Your task to perform on an android device: Open ESPN.com Image 0: 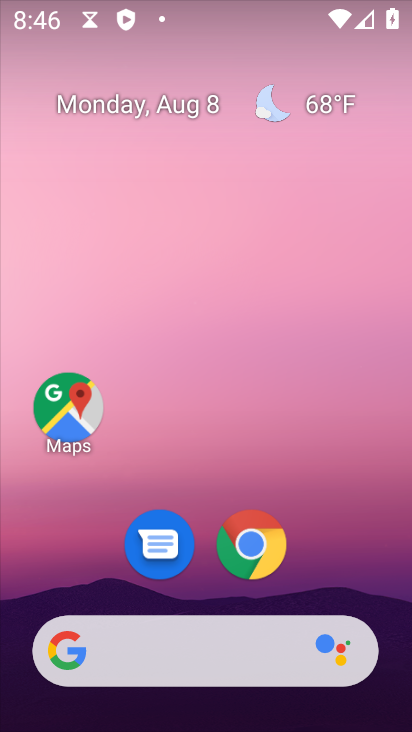
Step 0: press home button
Your task to perform on an android device: Open ESPN.com Image 1: 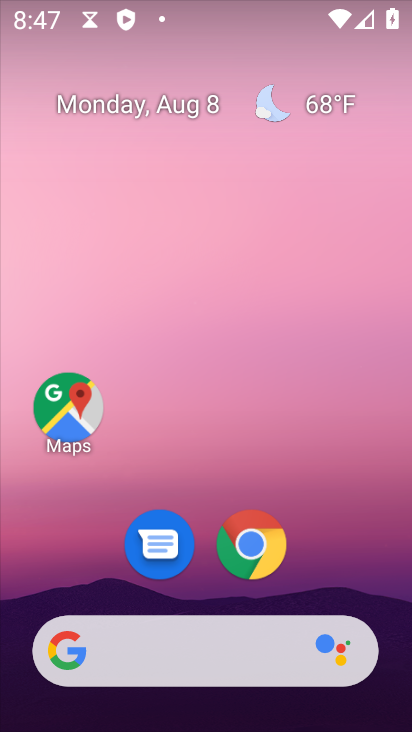
Step 1: click (252, 541)
Your task to perform on an android device: Open ESPN.com Image 2: 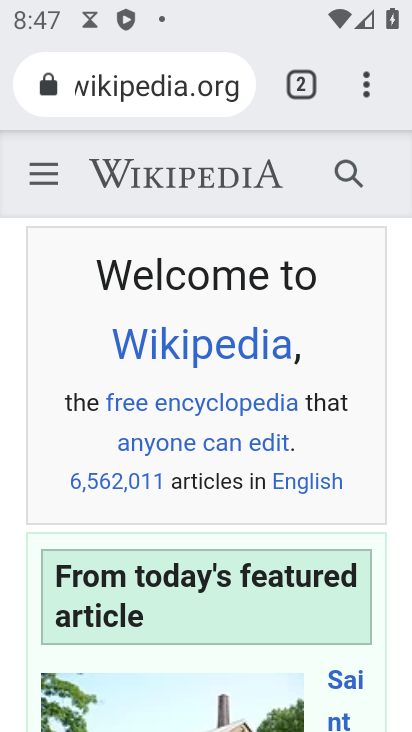
Step 2: click (296, 85)
Your task to perform on an android device: Open ESPN.com Image 3: 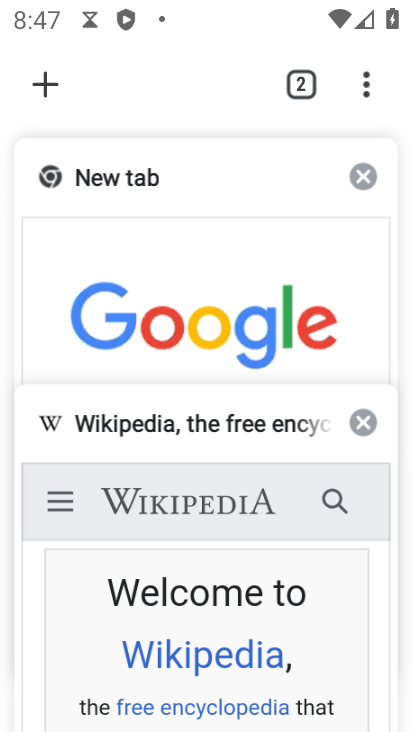
Step 3: click (291, 270)
Your task to perform on an android device: Open ESPN.com Image 4: 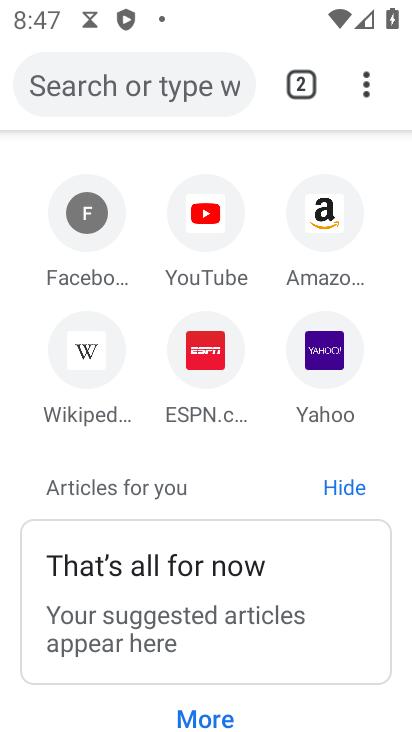
Step 4: click (205, 344)
Your task to perform on an android device: Open ESPN.com Image 5: 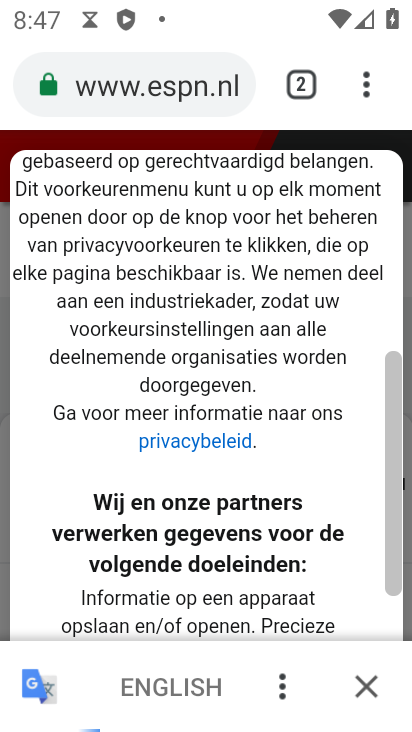
Step 5: drag from (217, 616) to (226, 122)
Your task to perform on an android device: Open ESPN.com Image 6: 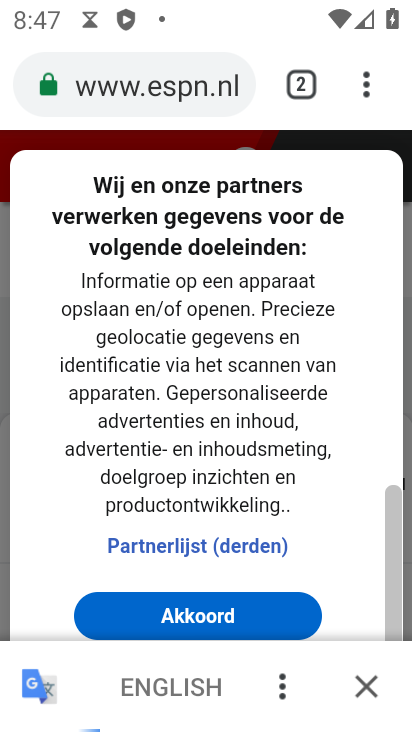
Step 6: click (202, 619)
Your task to perform on an android device: Open ESPN.com Image 7: 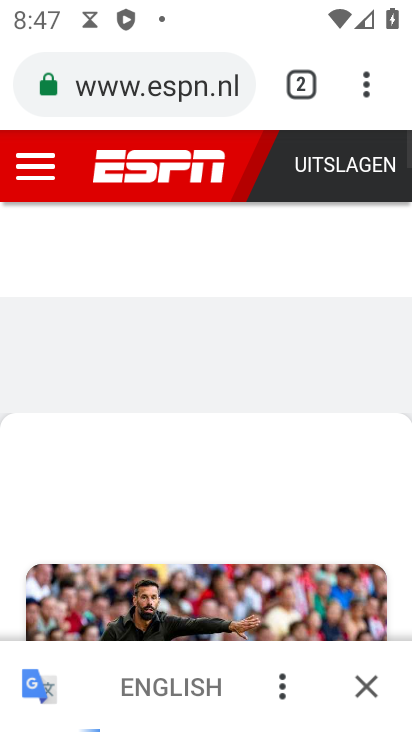
Step 7: click (371, 686)
Your task to perform on an android device: Open ESPN.com Image 8: 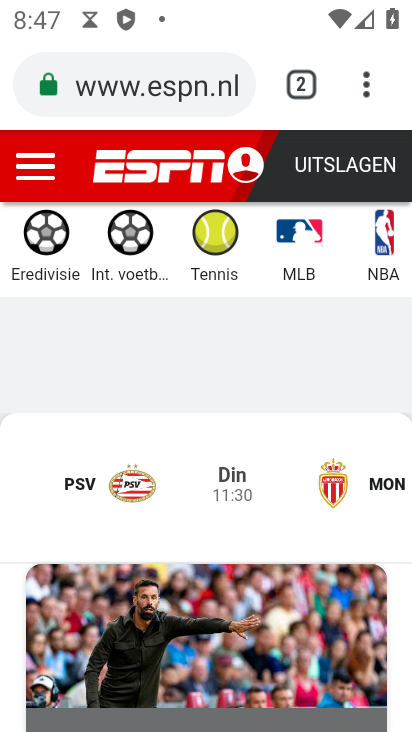
Step 8: task complete